Your task to perform on an android device: Go to battery settings Image 0: 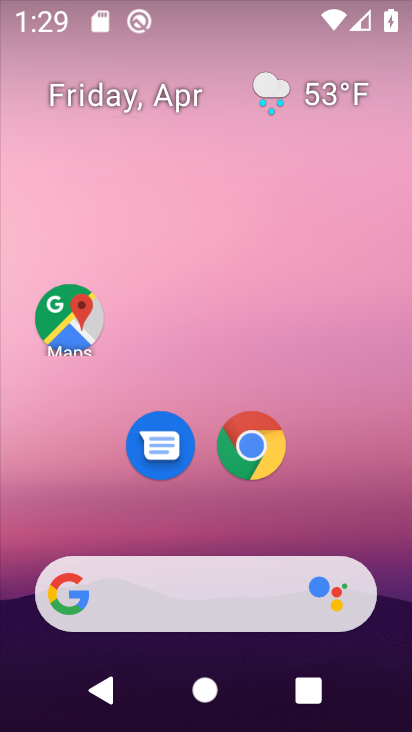
Step 0: drag from (364, 515) to (377, 215)
Your task to perform on an android device: Go to battery settings Image 1: 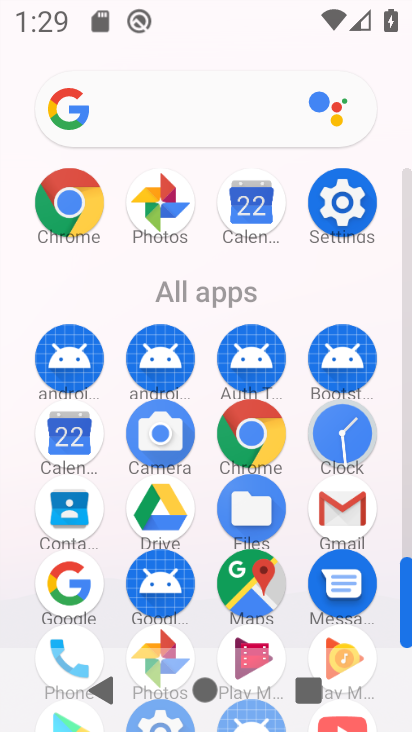
Step 1: click (360, 209)
Your task to perform on an android device: Go to battery settings Image 2: 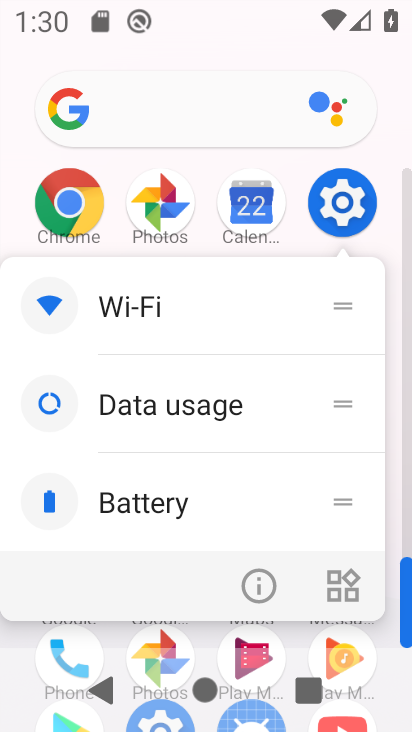
Step 2: click (373, 196)
Your task to perform on an android device: Go to battery settings Image 3: 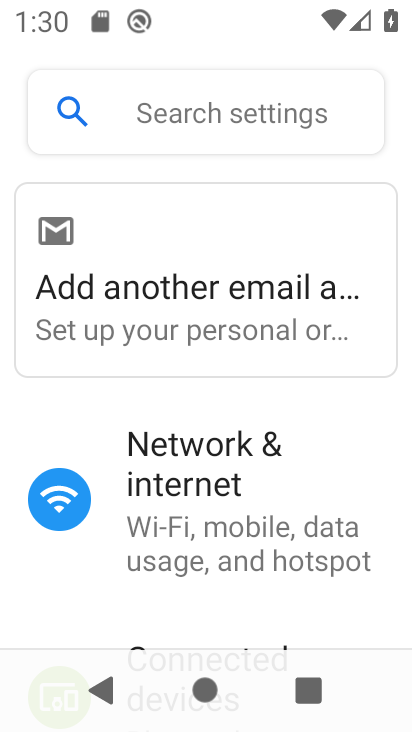
Step 3: drag from (374, 604) to (375, 477)
Your task to perform on an android device: Go to battery settings Image 4: 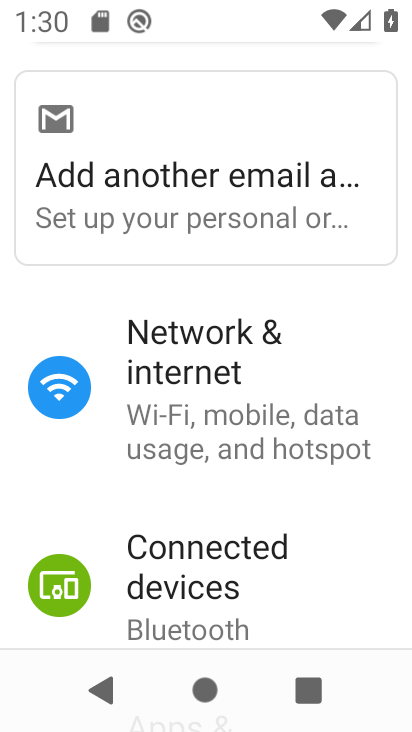
Step 4: drag from (376, 583) to (374, 413)
Your task to perform on an android device: Go to battery settings Image 5: 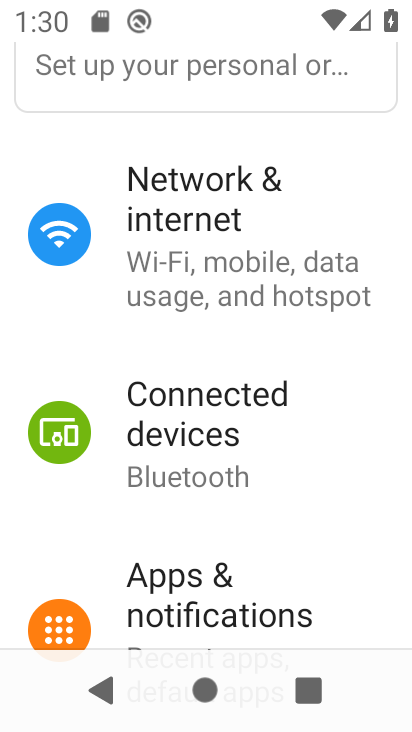
Step 5: drag from (362, 593) to (362, 431)
Your task to perform on an android device: Go to battery settings Image 6: 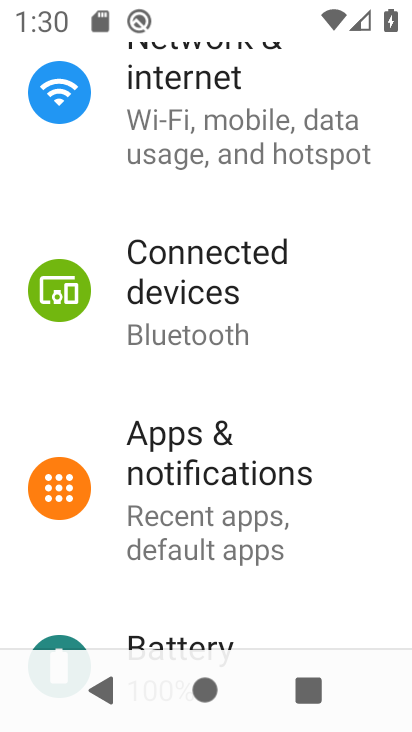
Step 6: drag from (359, 576) to (365, 437)
Your task to perform on an android device: Go to battery settings Image 7: 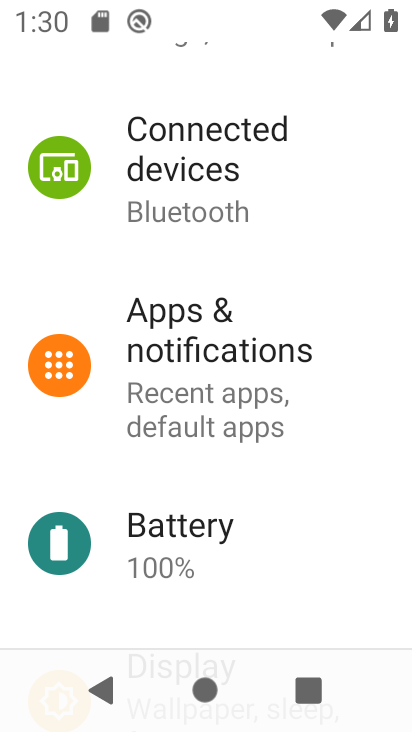
Step 7: drag from (361, 589) to (356, 432)
Your task to perform on an android device: Go to battery settings Image 8: 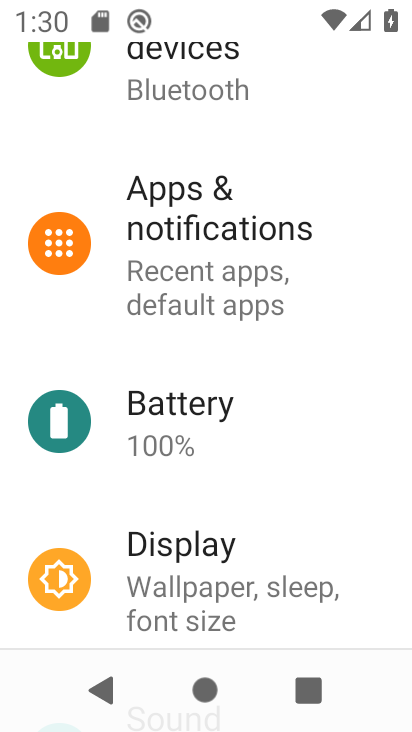
Step 8: drag from (367, 581) to (356, 417)
Your task to perform on an android device: Go to battery settings Image 9: 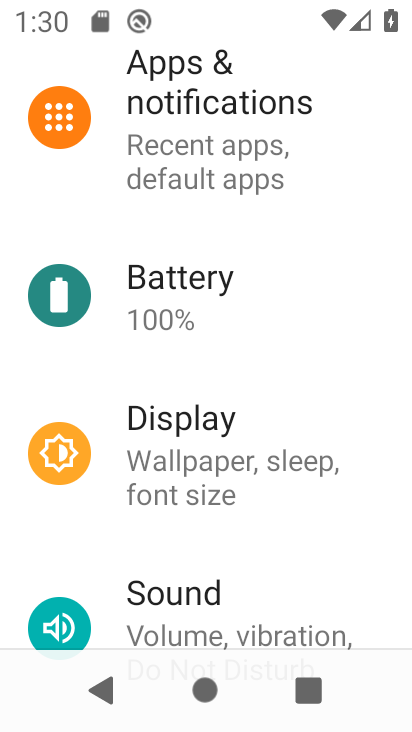
Step 9: click (216, 308)
Your task to perform on an android device: Go to battery settings Image 10: 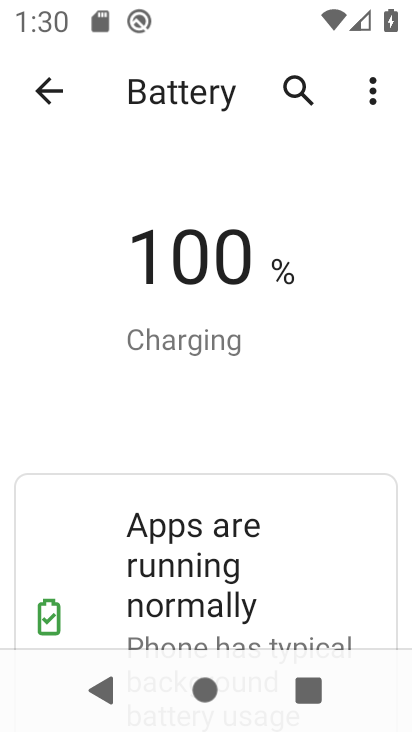
Step 10: task complete